Your task to perform on an android device: open app "YouTube Kids" (install if not already installed) Image 0: 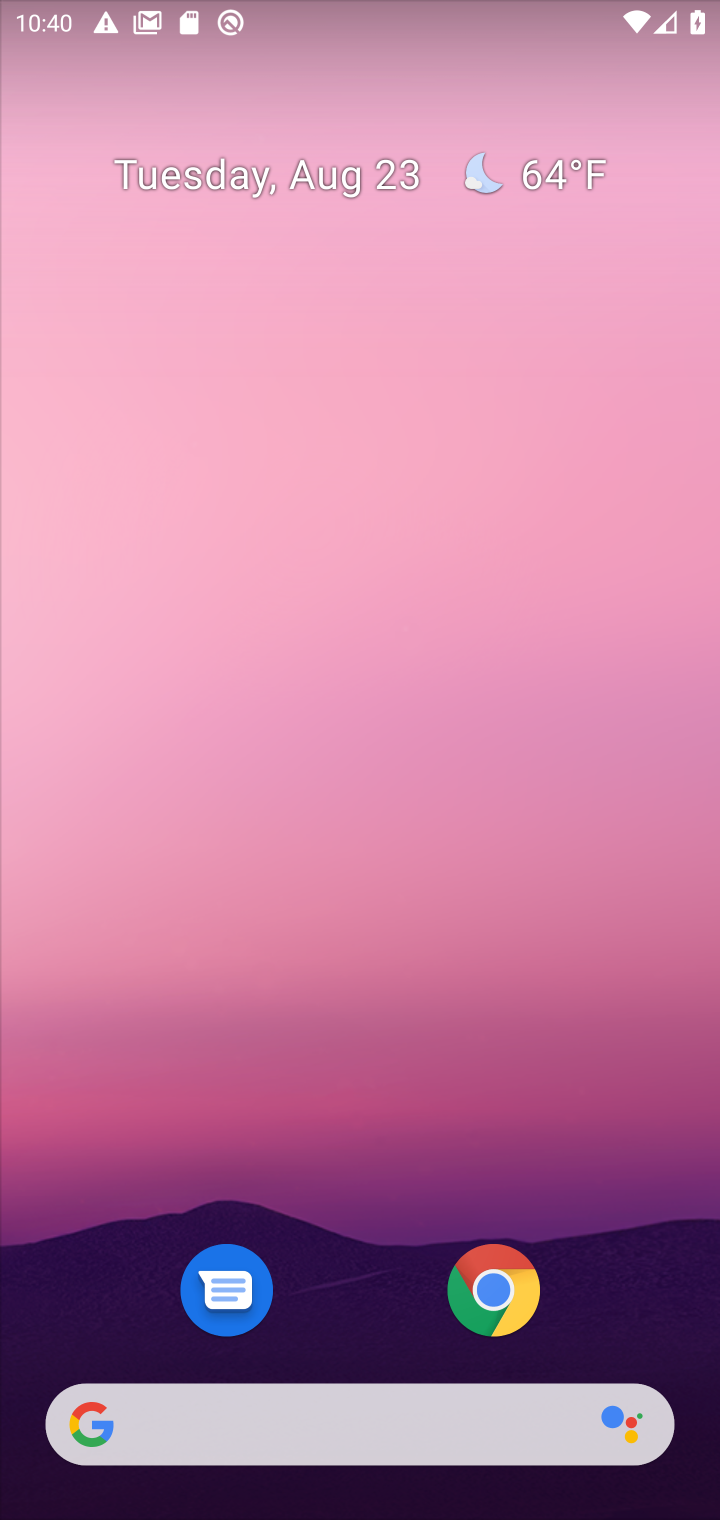
Step 0: drag from (350, 1318) to (353, 16)
Your task to perform on an android device: open app "YouTube Kids" (install if not already installed) Image 1: 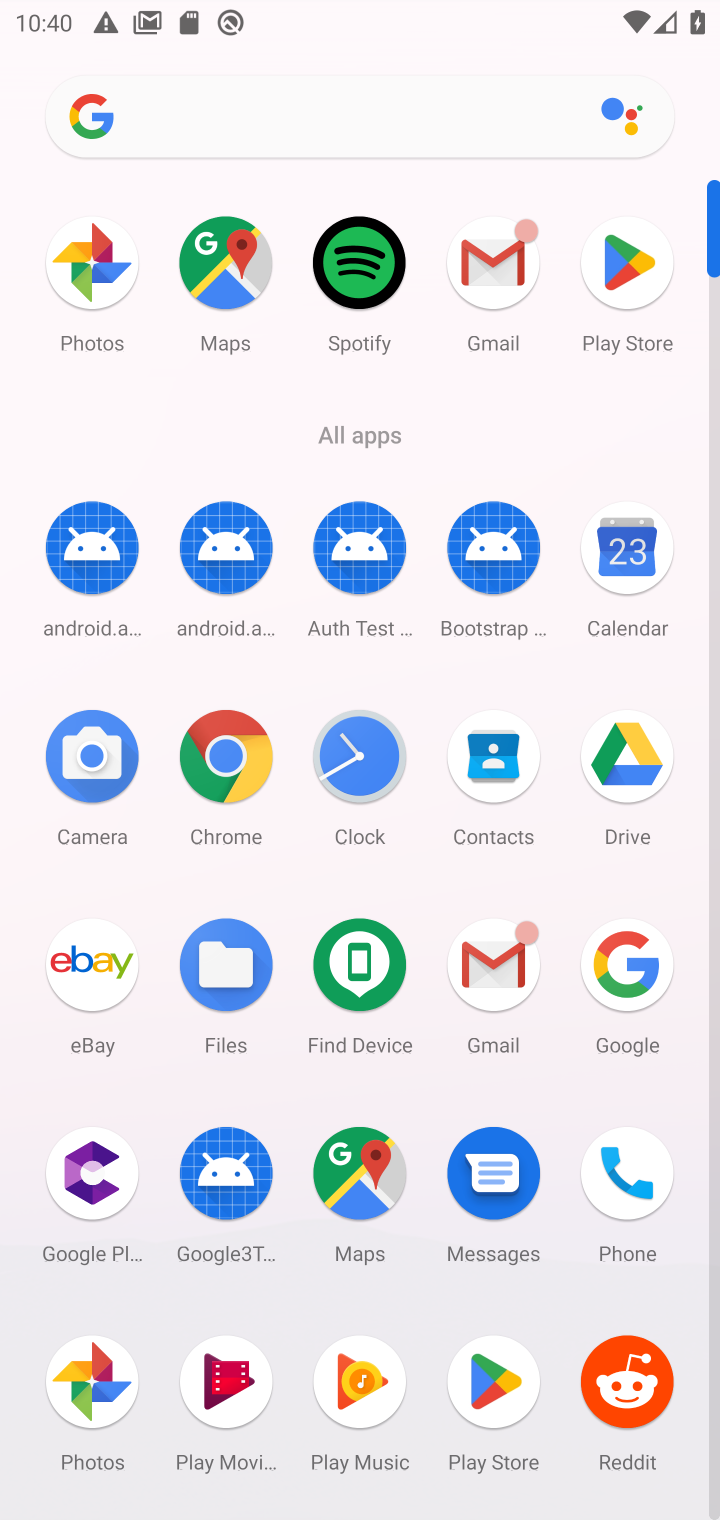
Step 1: click (625, 251)
Your task to perform on an android device: open app "YouTube Kids" (install if not already installed) Image 2: 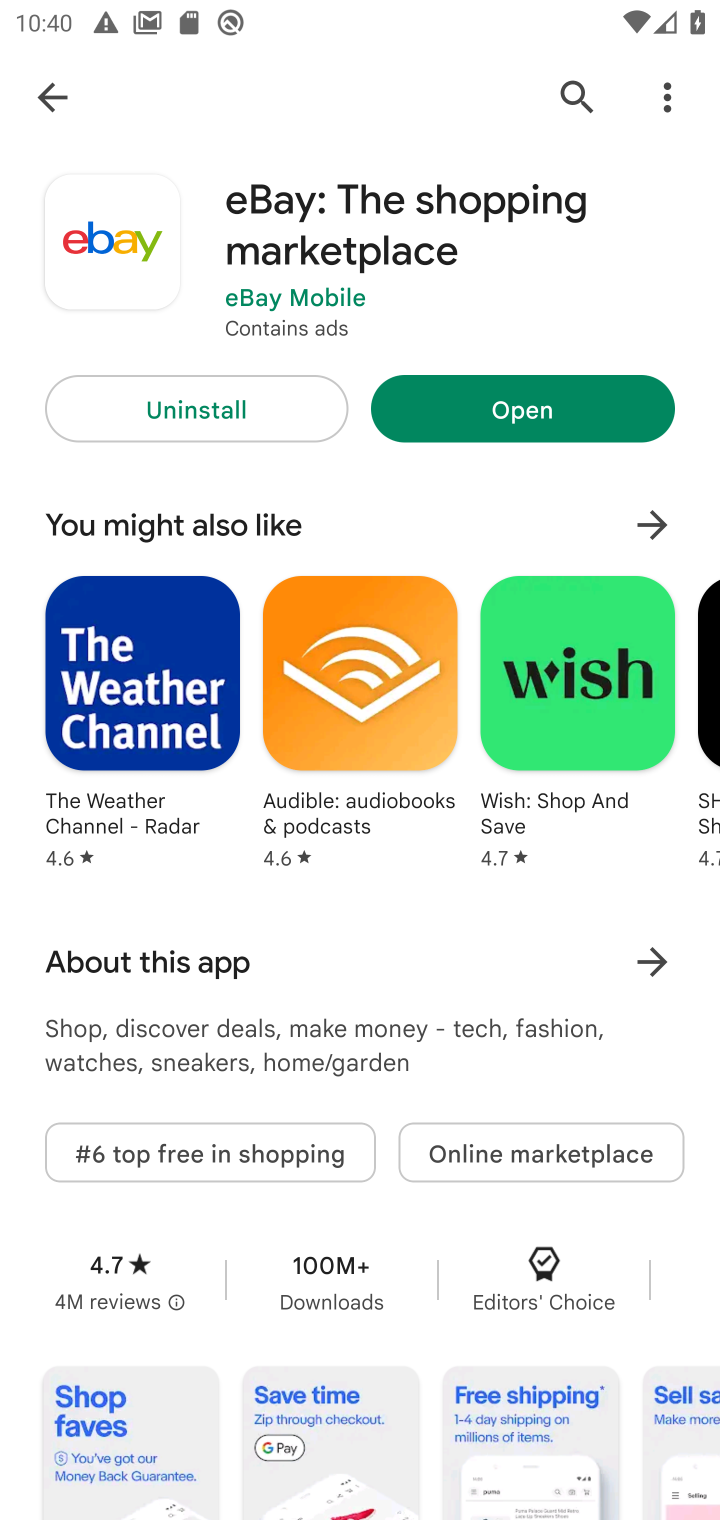
Step 2: click (581, 96)
Your task to perform on an android device: open app "YouTube Kids" (install if not already installed) Image 3: 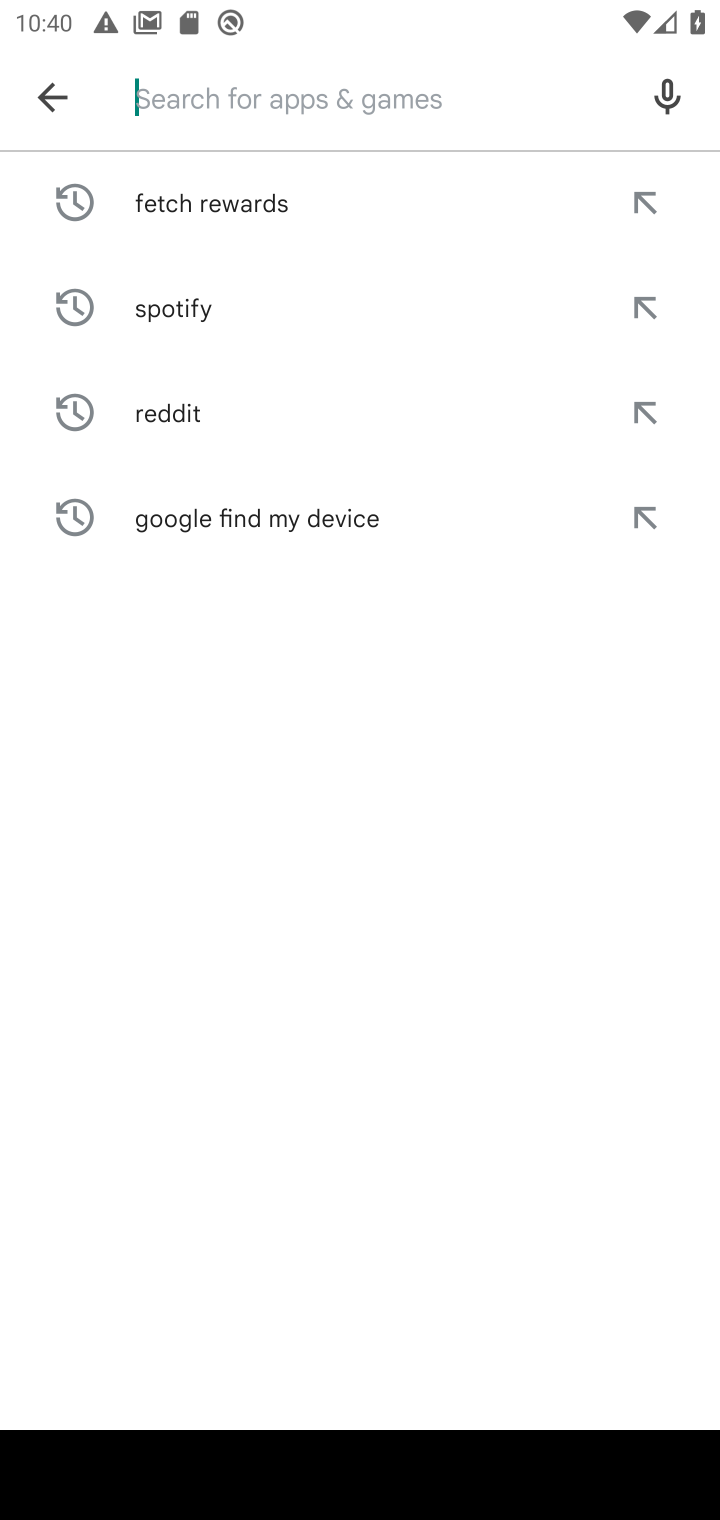
Step 3: type "YouTube Kids"
Your task to perform on an android device: open app "YouTube Kids" (install if not already installed) Image 4: 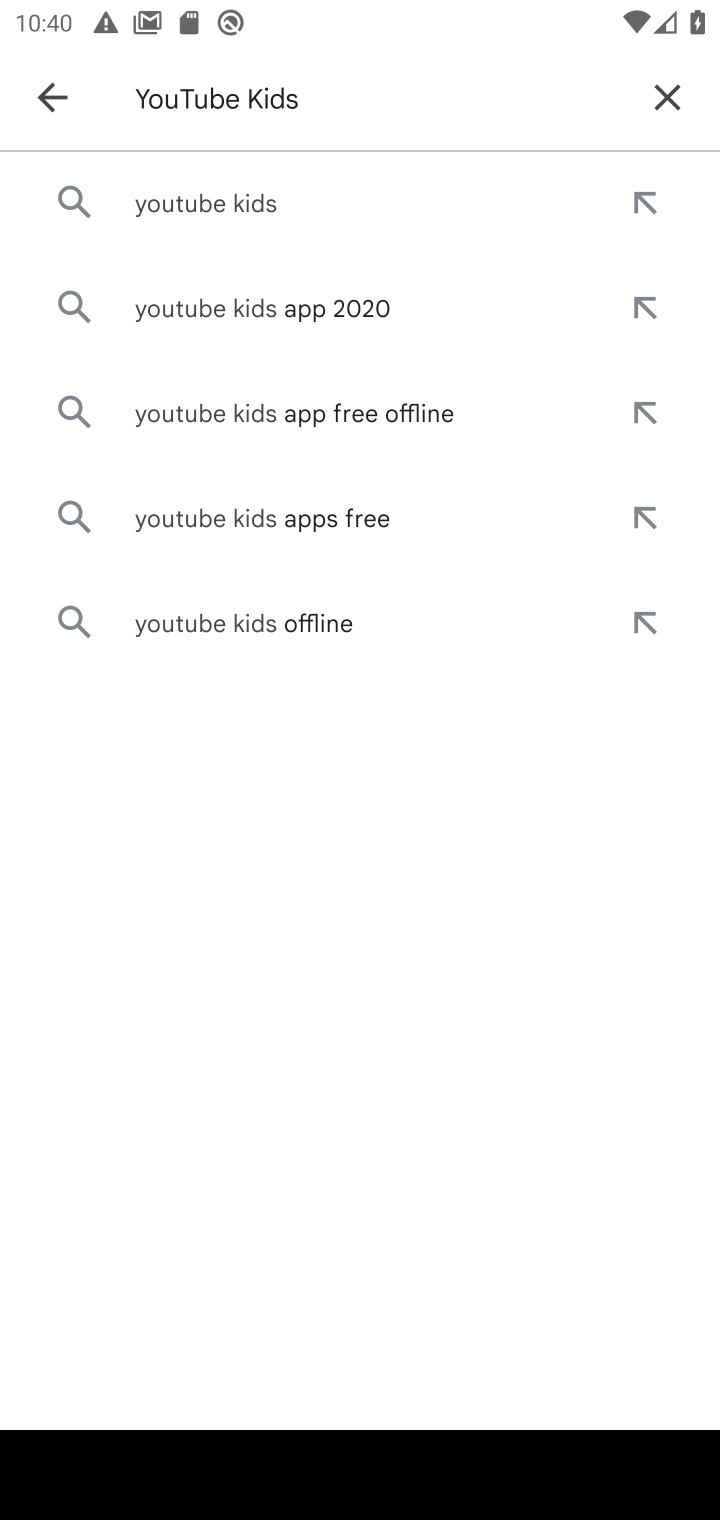
Step 4: click (169, 201)
Your task to perform on an android device: open app "YouTube Kids" (install if not already installed) Image 5: 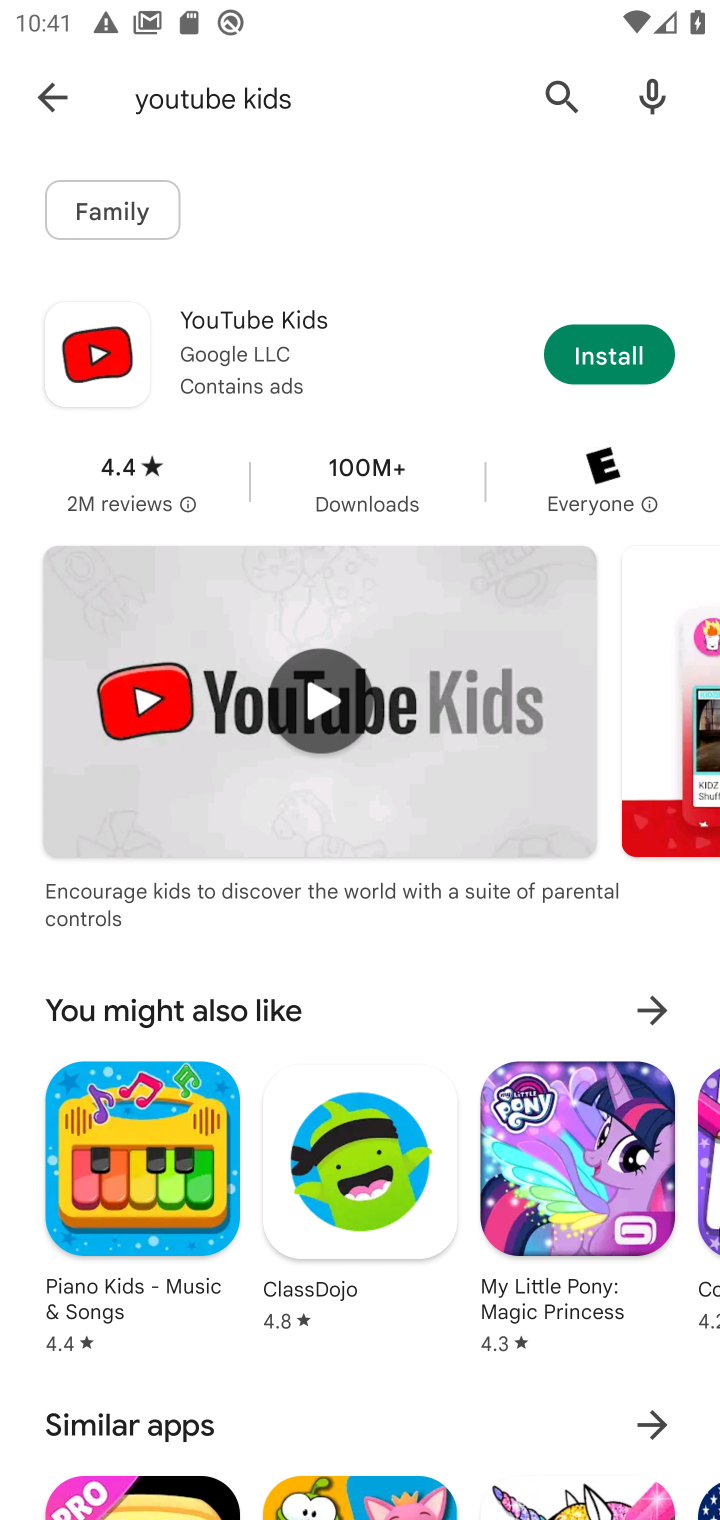
Step 5: click (613, 361)
Your task to perform on an android device: open app "YouTube Kids" (install if not already installed) Image 6: 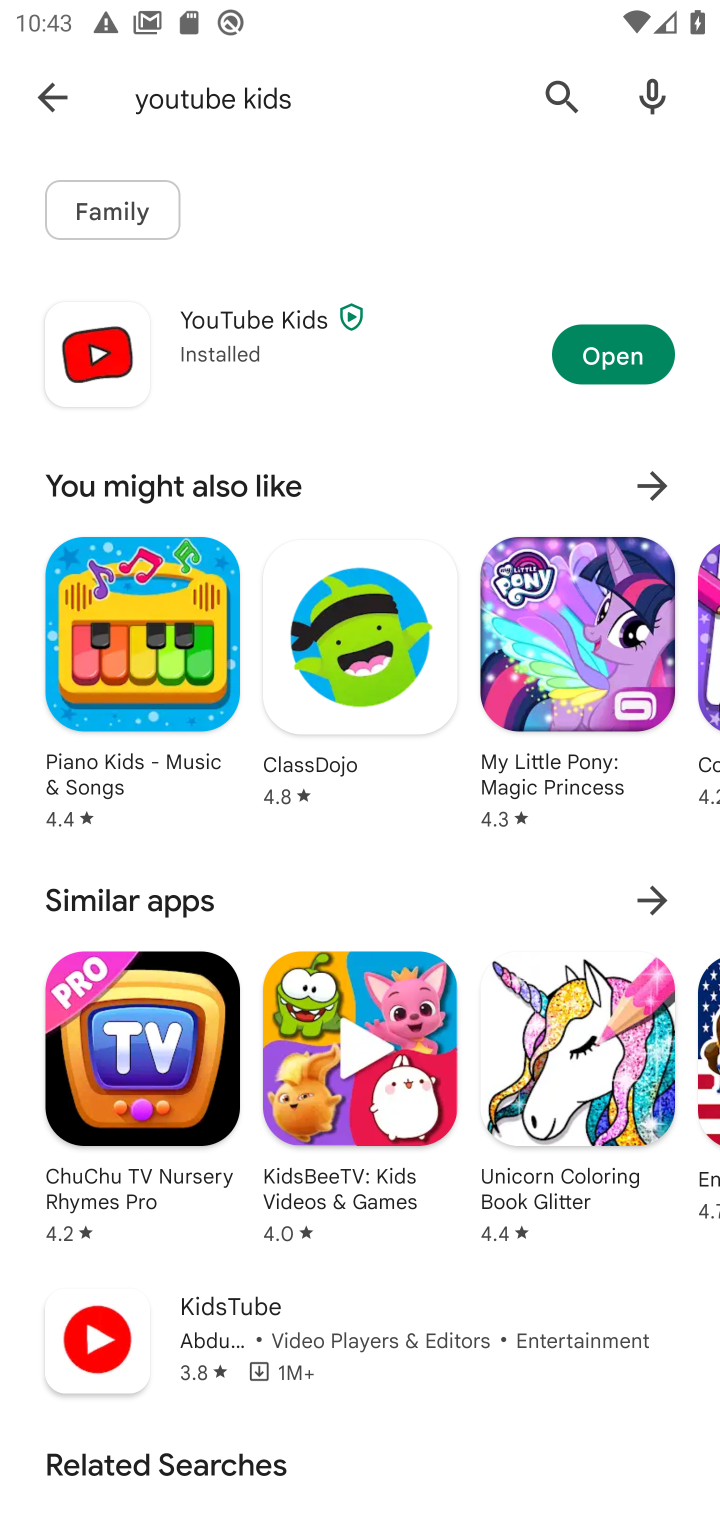
Step 6: click (631, 340)
Your task to perform on an android device: open app "YouTube Kids" (install if not already installed) Image 7: 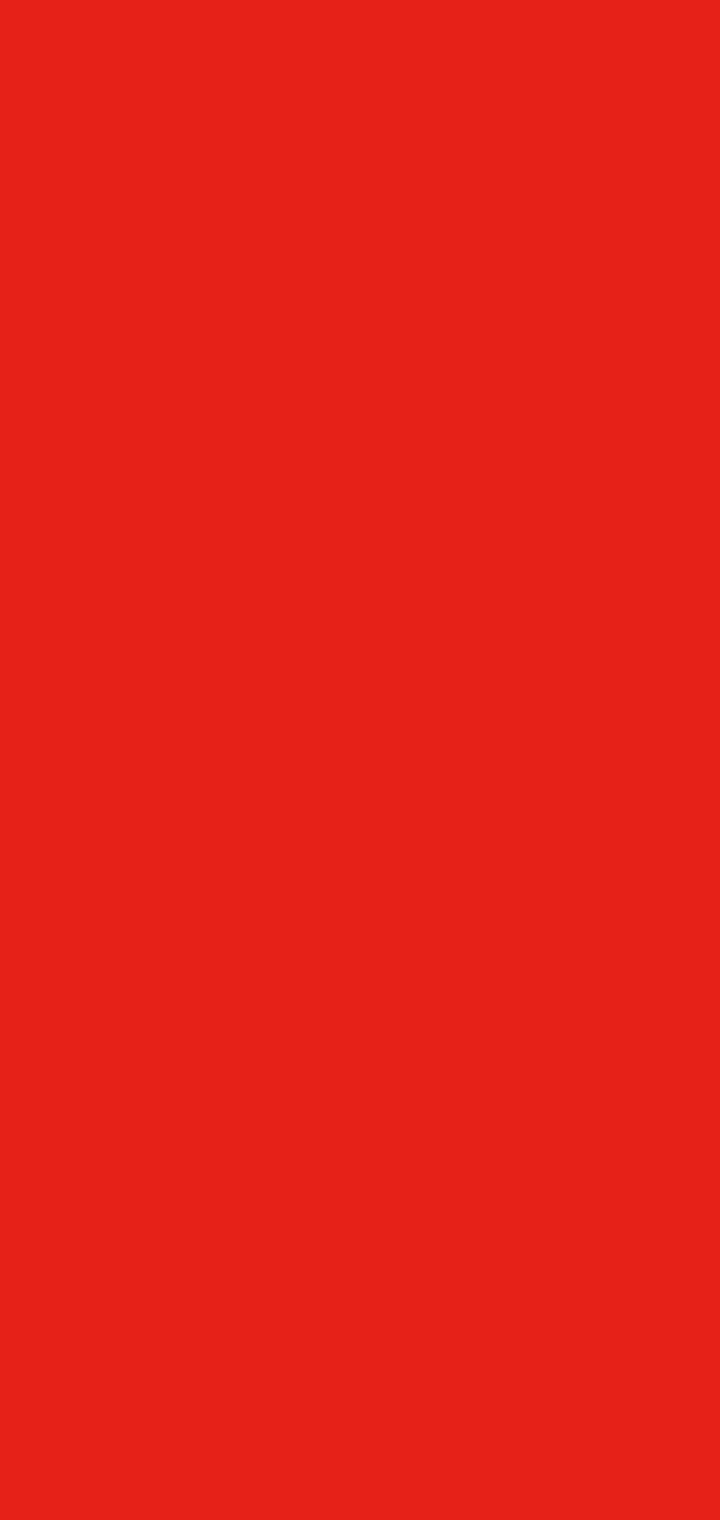
Step 7: task complete